Your task to perform on an android device: see creations saved in the google photos Image 0: 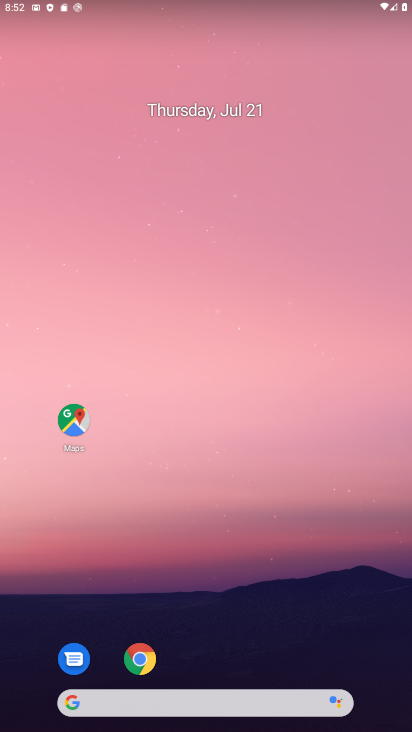
Step 0: drag from (234, 679) to (212, 5)
Your task to perform on an android device: see creations saved in the google photos Image 1: 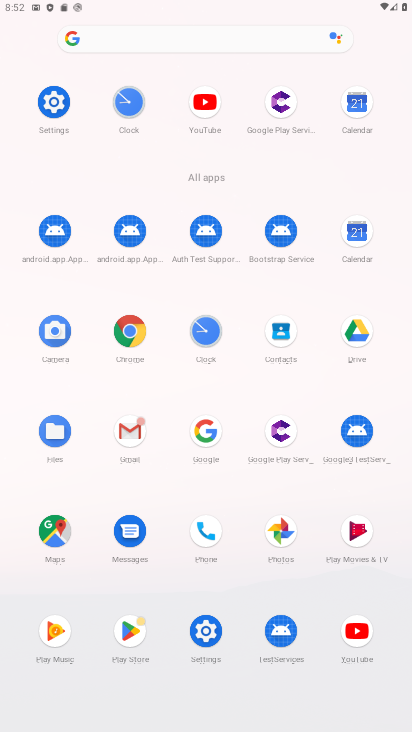
Step 1: click (280, 528)
Your task to perform on an android device: see creations saved in the google photos Image 2: 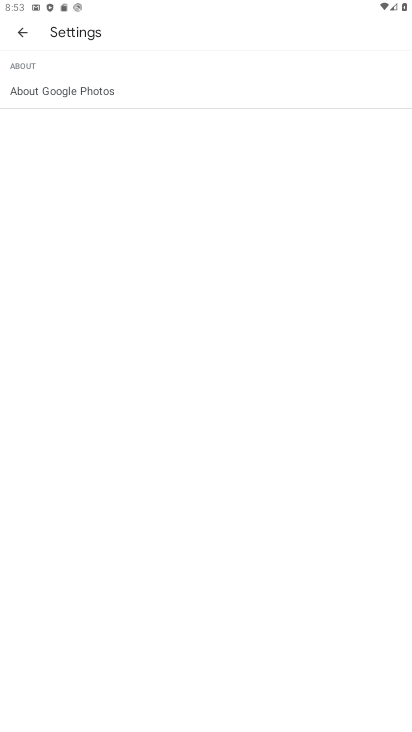
Step 2: click (21, 27)
Your task to perform on an android device: see creations saved in the google photos Image 3: 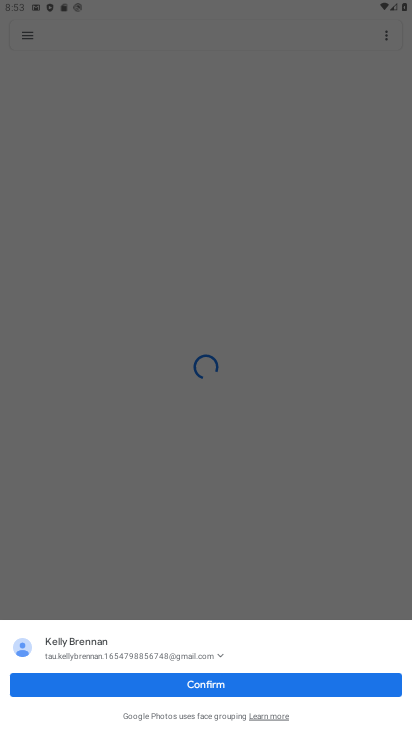
Step 3: click (240, 46)
Your task to perform on an android device: see creations saved in the google photos Image 4: 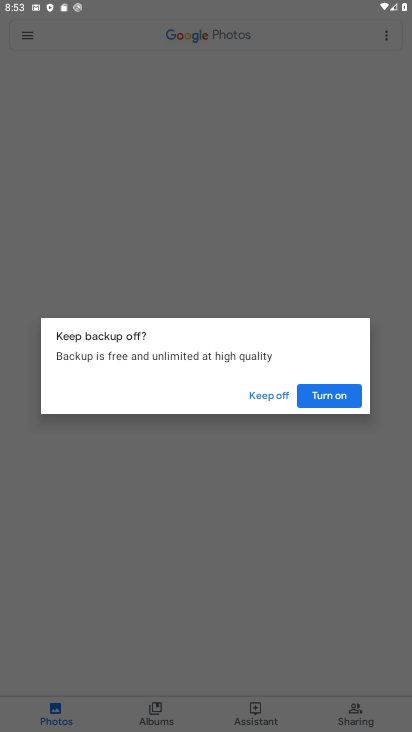
Step 4: click (338, 398)
Your task to perform on an android device: see creations saved in the google photos Image 5: 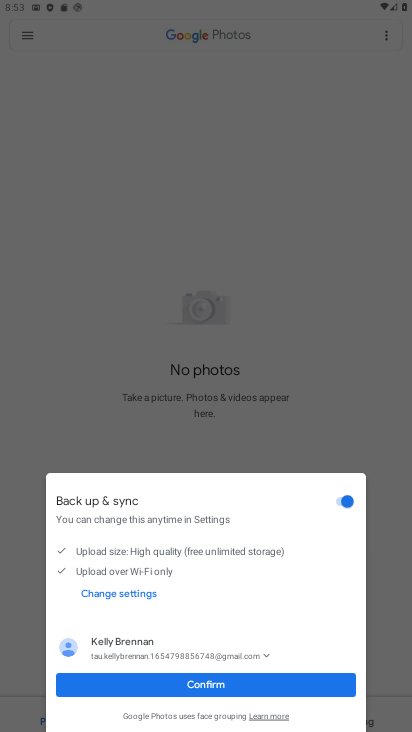
Step 5: click (213, 682)
Your task to perform on an android device: see creations saved in the google photos Image 6: 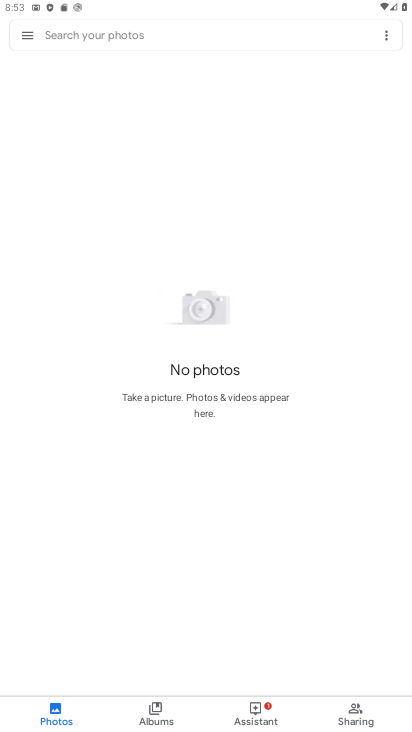
Step 6: click (157, 43)
Your task to perform on an android device: see creations saved in the google photos Image 7: 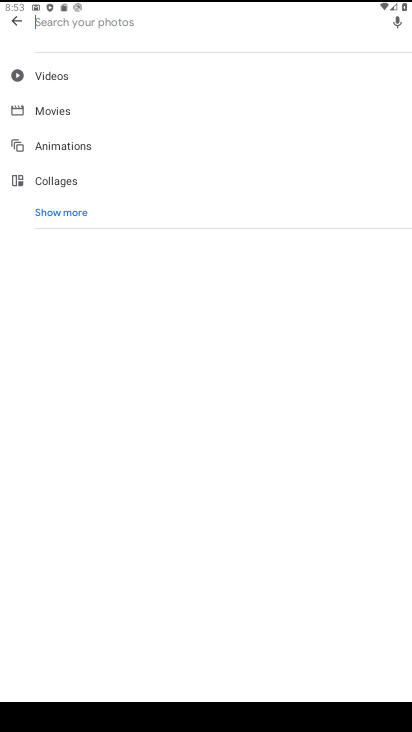
Step 7: click (60, 217)
Your task to perform on an android device: see creations saved in the google photos Image 8: 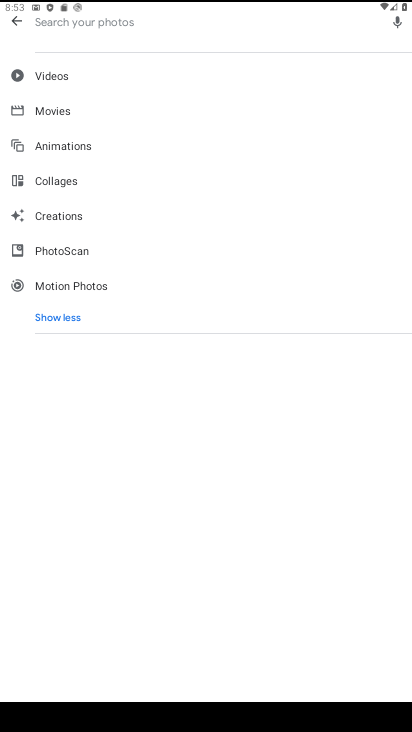
Step 8: click (61, 210)
Your task to perform on an android device: see creations saved in the google photos Image 9: 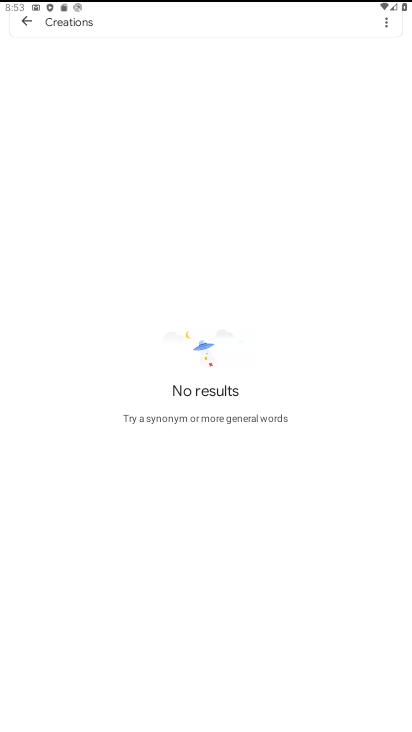
Step 9: task complete